Your task to perform on an android device: turn off sleep mode Image 0: 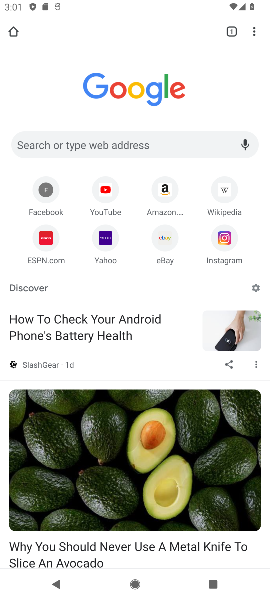
Step 0: press home button
Your task to perform on an android device: turn off sleep mode Image 1: 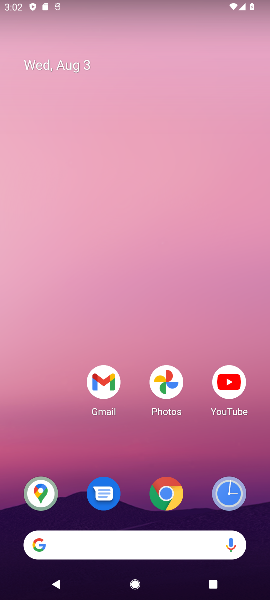
Step 1: drag from (192, 494) to (249, 30)
Your task to perform on an android device: turn off sleep mode Image 2: 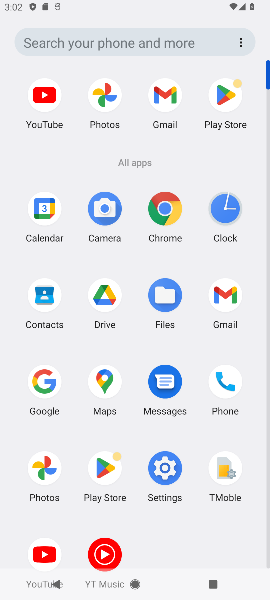
Step 2: click (153, 483)
Your task to perform on an android device: turn off sleep mode Image 3: 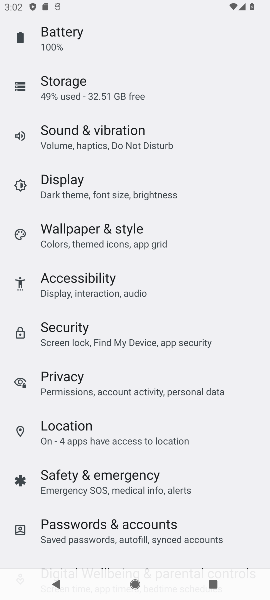
Step 3: drag from (130, 501) to (161, 175)
Your task to perform on an android device: turn off sleep mode Image 4: 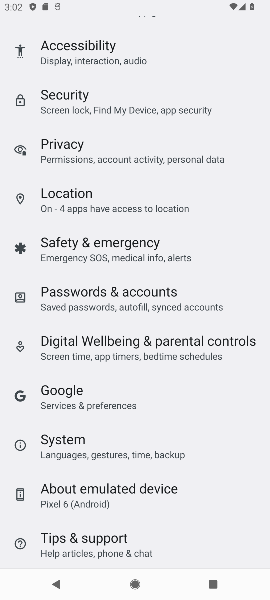
Step 4: drag from (161, 175) to (137, 467)
Your task to perform on an android device: turn off sleep mode Image 5: 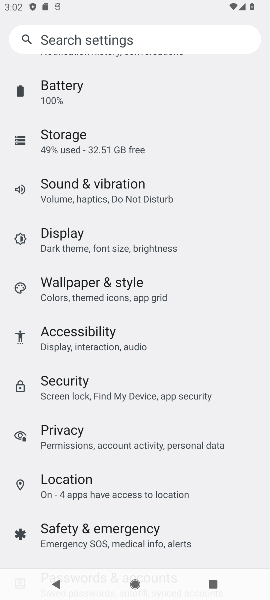
Step 5: drag from (122, 183) to (152, 399)
Your task to perform on an android device: turn off sleep mode Image 6: 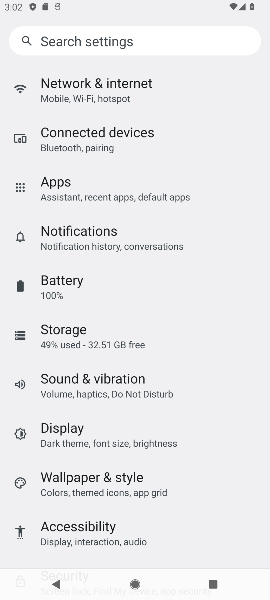
Step 6: click (98, 422)
Your task to perform on an android device: turn off sleep mode Image 7: 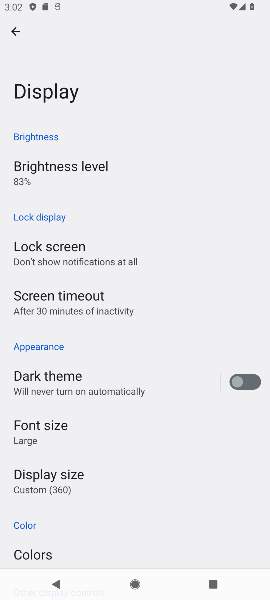
Step 7: click (66, 303)
Your task to perform on an android device: turn off sleep mode Image 8: 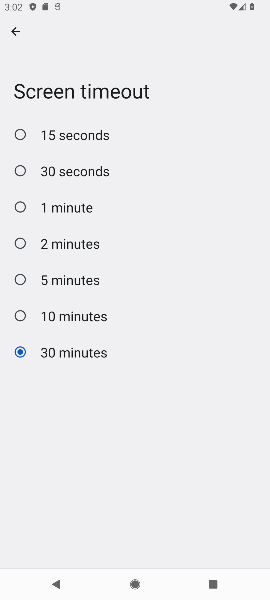
Step 8: task complete